Your task to perform on an android device: turn on data saver in the chrome app Image 0: 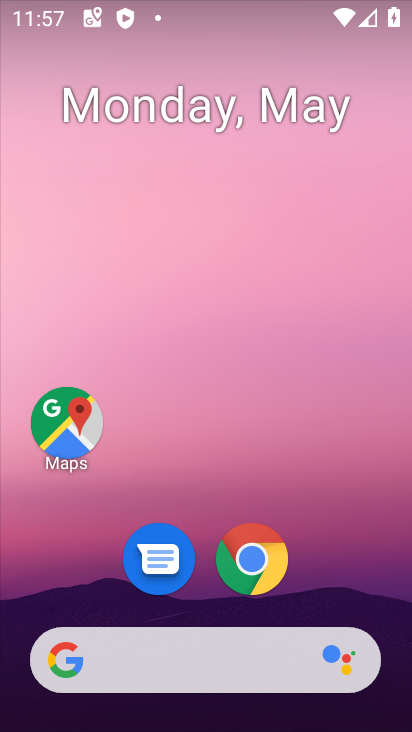
Step 0: click (288, 559)
Your task to perform on an android device: turn on data saver in the chrome app Image 1: 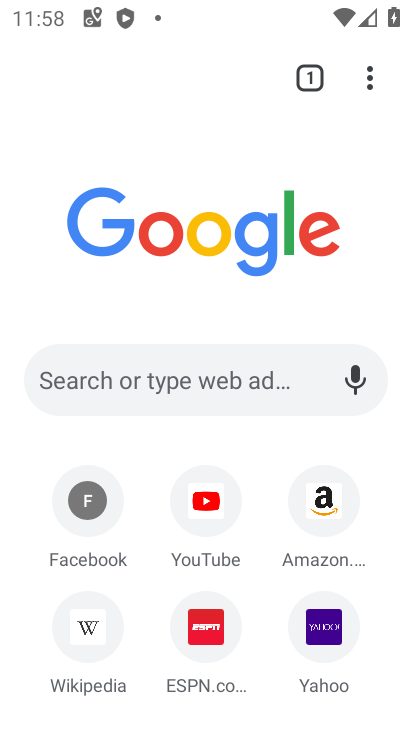
Step 1: click (363, 65)
Your task to perform on an android device: turn on data saver in the chrome app Image 2: 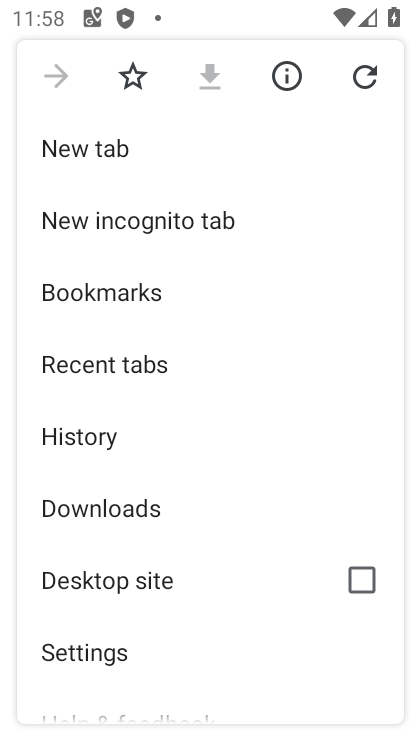
Step 2: click (164, 656)
Your task to perform on an android device: turn on data saver in the chrome app Image 3: 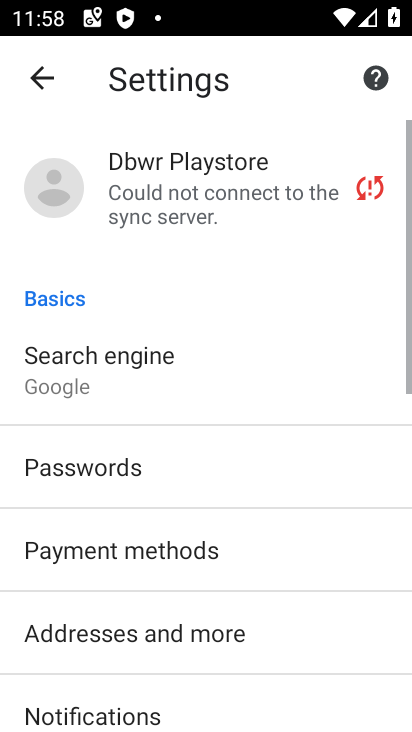
Step 3: drag from (164, 656) to (204, 363)
Your task to perform on an android device: turn on data saver in the chrome app Image 4: 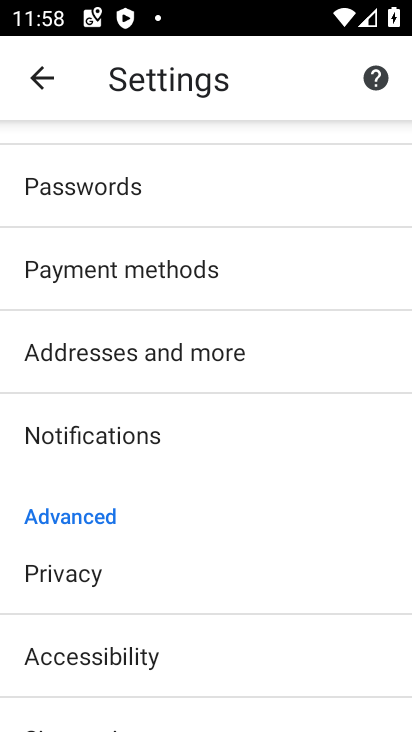
Step 4: drag from (175, 674) to (241, 325)
Your task to perform on an android device: turn on data saver in the chrome app Image 5: 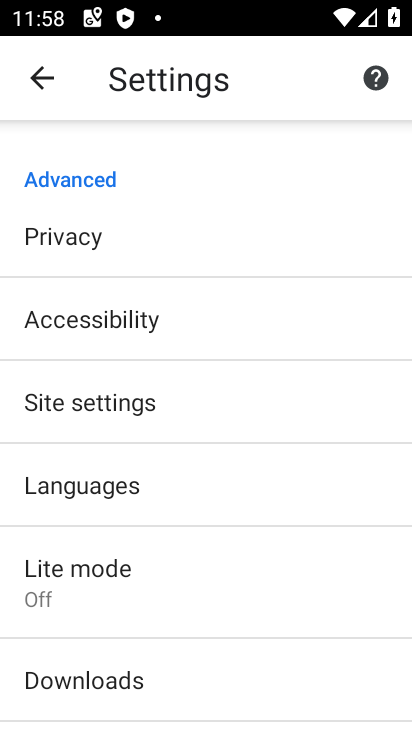
Step 5: click (143, 553)
Your task to perform on an android device: turn on data saver in the chrome app Image 6: 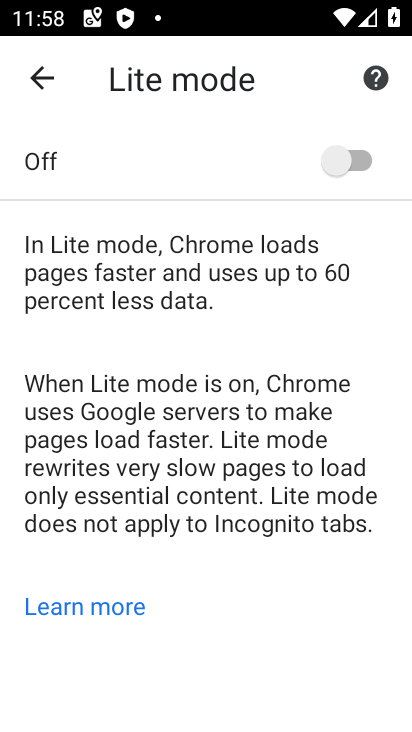
Step 6: click (364, 162)
Your task to perform on an android device: turn on data saver in the chrome app Image 7: 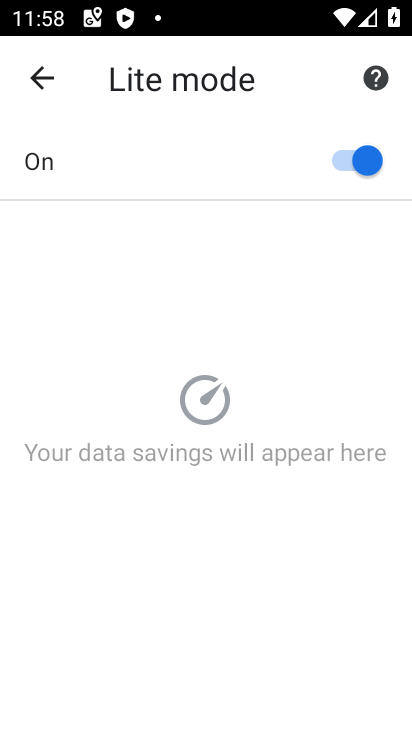
Step 7: task complete